Your task to perform on an android device: Open eBay Image 0: 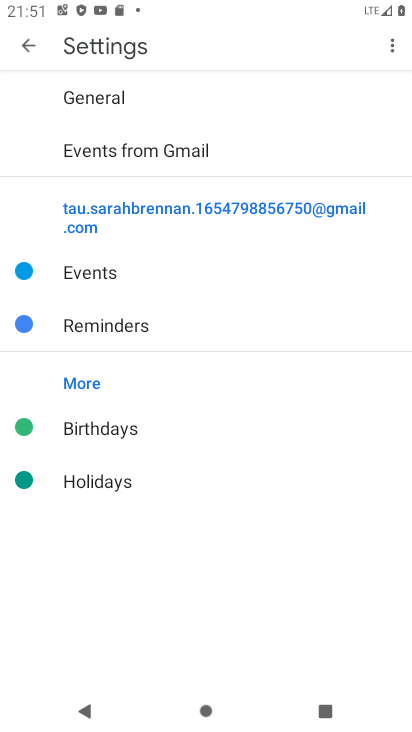
Step 0: press home button
Your task to perform on an android device: Open eBay Image 1: 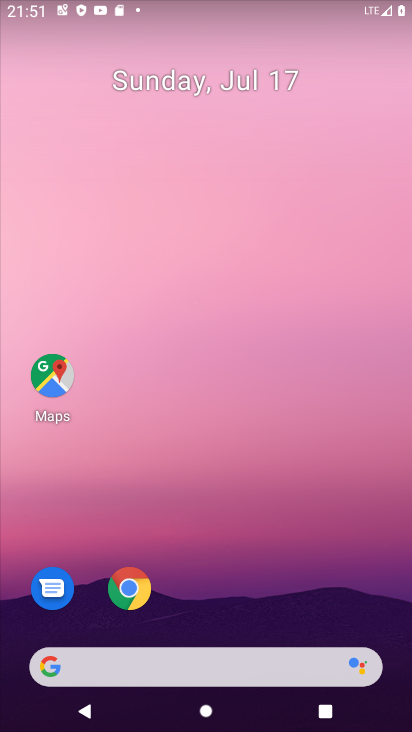
Step 1: drag from (288, 614) to (344, 266)
Your task to perform on an android device: Open eBay Image 2: 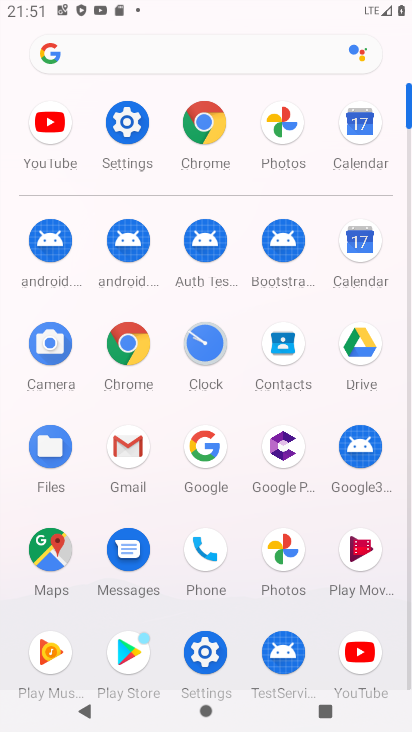
Step 2: click (217, 139)
Your task to perform on an android device: Open eBay Image 3: 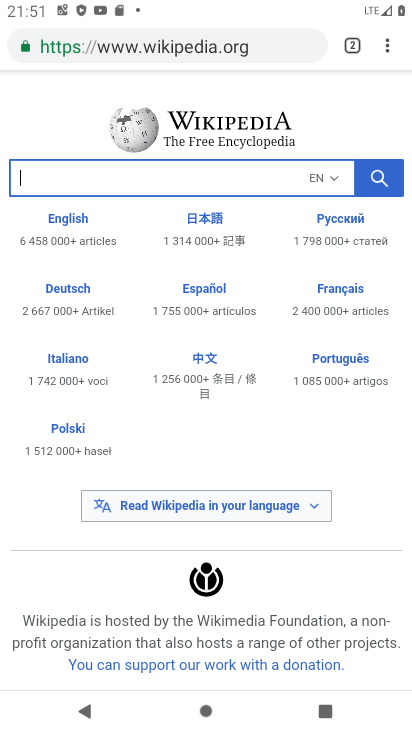
Step 3: drag from (391, 42) to (252, 86)
Your task to perform on an android device: Open eBay Image 4: 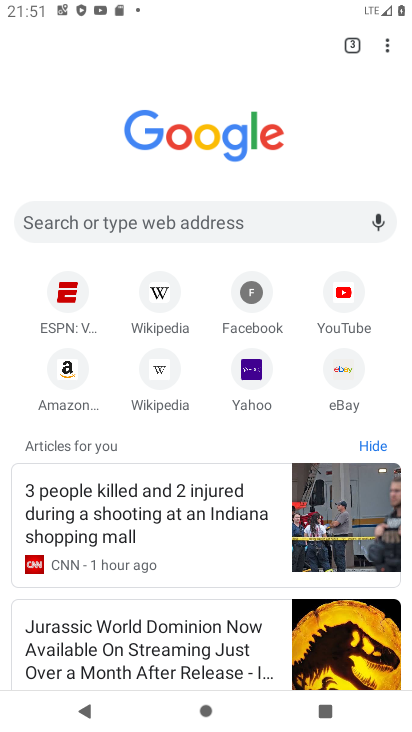
Step 4: click (327, 373)
Your task to perform on an android device: Open eBay Image 5: 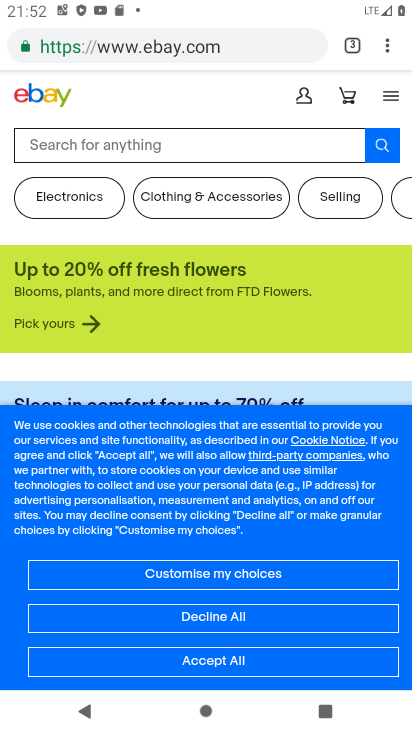
Step 5: task complete